Your task to perform on an android device: Show me productivity apps on the Play Store Image 0: 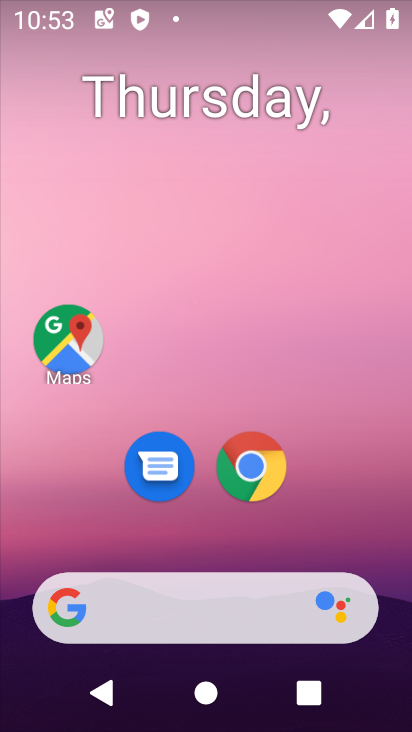
Step 0: drag from (217, 574) to (120, 8)
Your task to perform on an android device: Show me productivity apps on the Play Store Image 1: 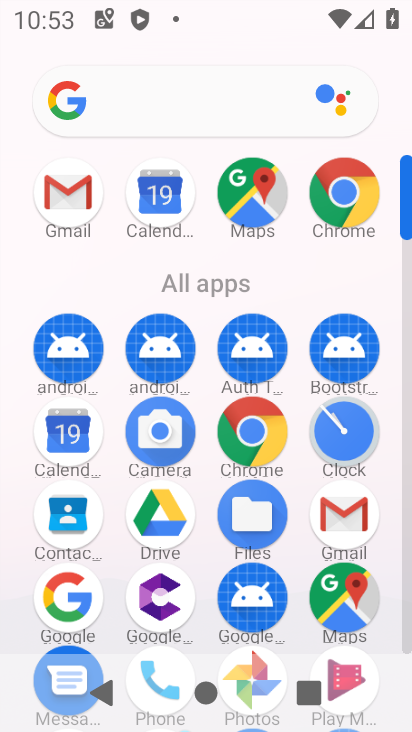
Step 1: drag from (201, 608) to (151, 240)
Your task to perform on an android device: Show me productivity apps on the Play Store Image 2: 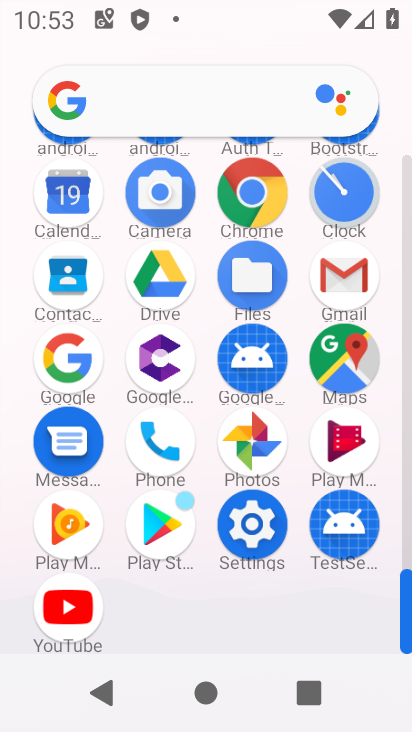
Step 2: click (179, 542)
Your task to perform on an android device: Show me productivity apps on the Play Store Image 3: 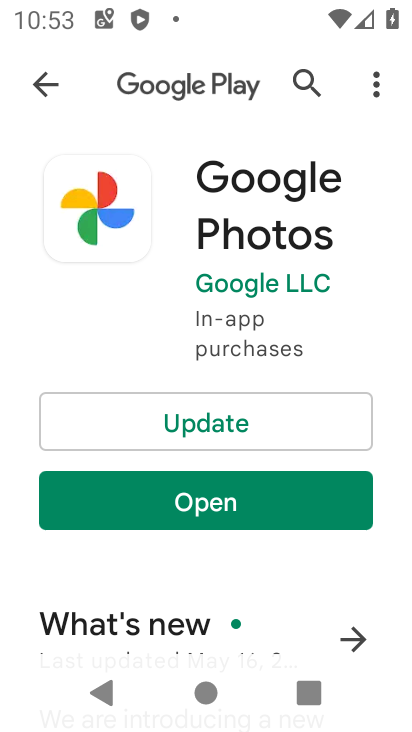
Step 3: drag from (191, 522) to (162, 206)
Your task to perform on an android device: Show me productivity apps on the Play Store Image 4: 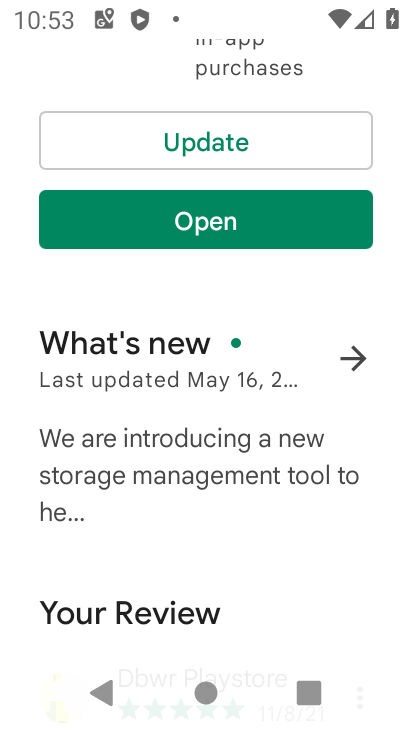
Step 4: drag from (51, 114) to (93, 450)
Your task to perform on an android device: Show me productivity apps on the Play Store Image 5: 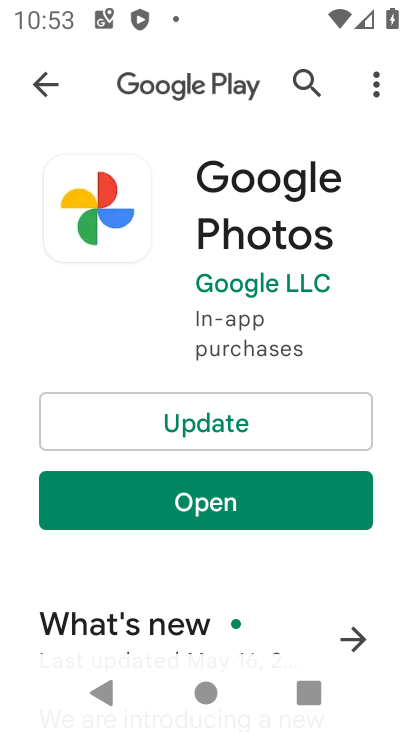
Step 5: click (49, 102)
Your task to perform on an android device: Show me productivity apps on the Play Store Image 6: 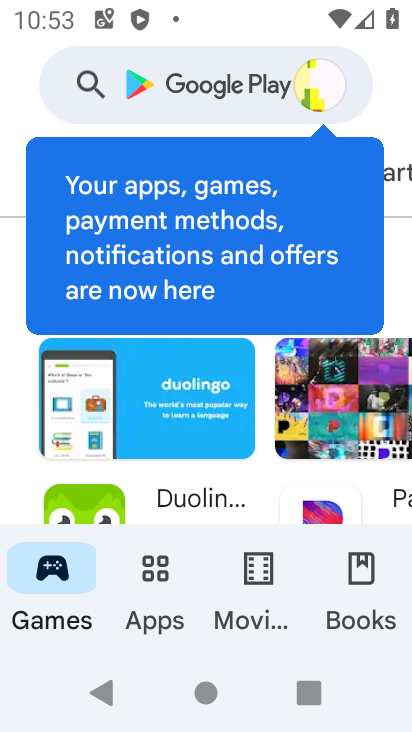
Step 6: click (136, 576)
Your task to perform on an android device: Show me productivity apps on the Play Store Image 7: 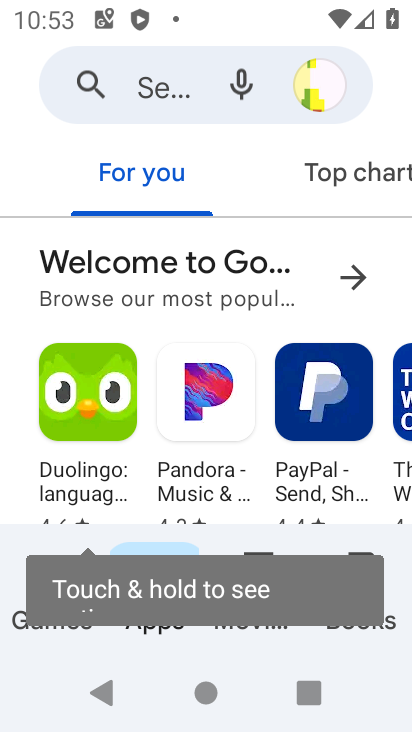
Step 7: drag from (379, 190) to (170, 203)
Your task to perform on an android device: Show me productivity apps on the Play Store Image 8: 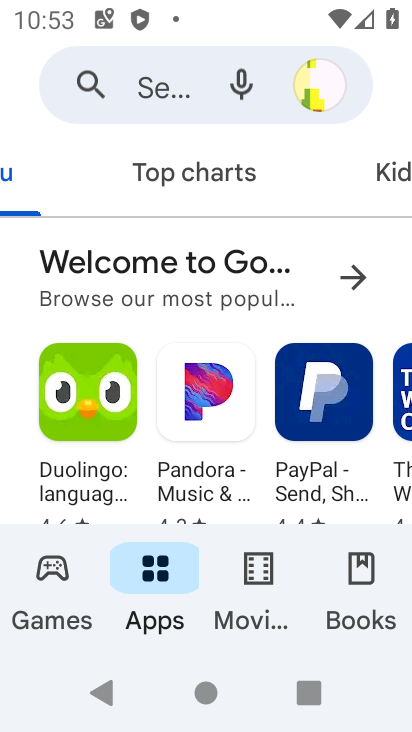
Step 8: drag from (391, 185) to (77, 178)
Your task to perform on an android device: Show me productivity apps on the Play Store Image 9: 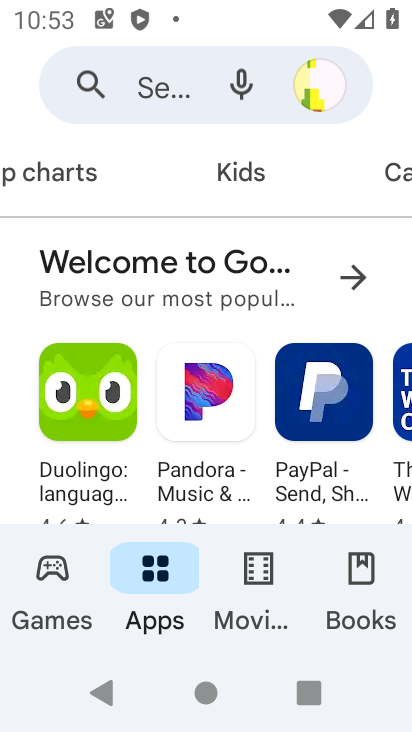
Step 9: click (383, 179)
Your task to perform on an android device: Show me productivity apps on the Play Store Image 10: 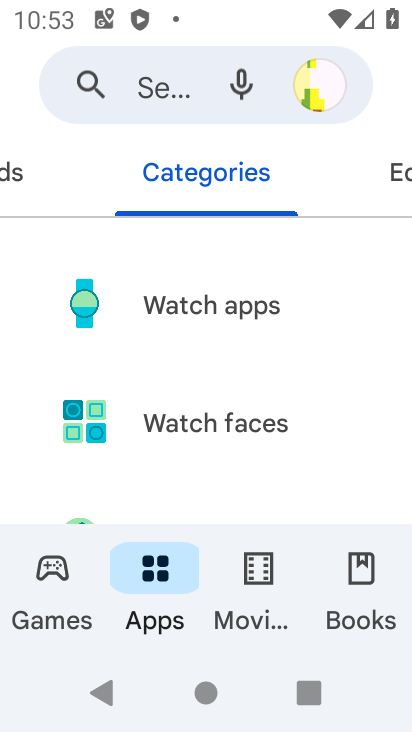
Step 10: drag from (152, 461) to (104, 255)
Your task to perform on an android device: Show me productivity apps on the Play Store Image 11: 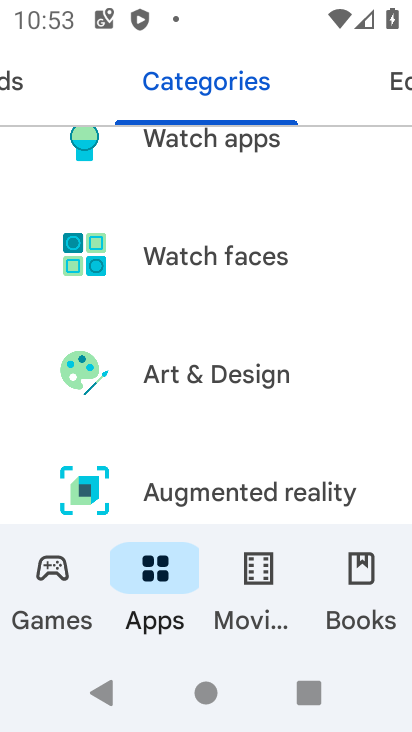
Step 11: drag from (152, 506) to (74, 34)
Your task to perform on an android device: Show me productivity apps on the Play Store Image 12: 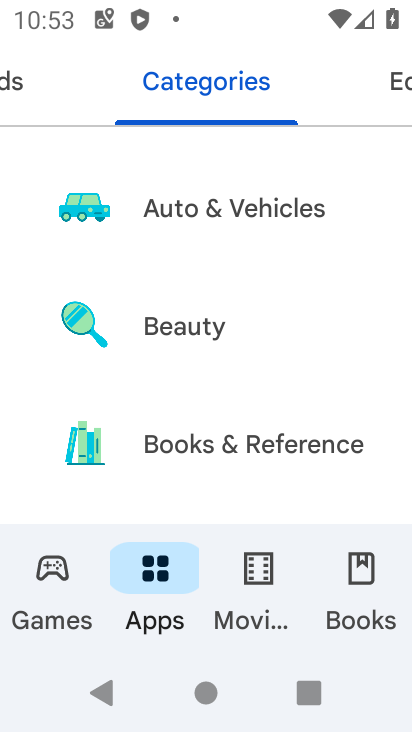
Step 12: drag from (224, 434) to (184, 3)
Your task to perform on an android device: Show me productivity apps on the Play Store Image 13: 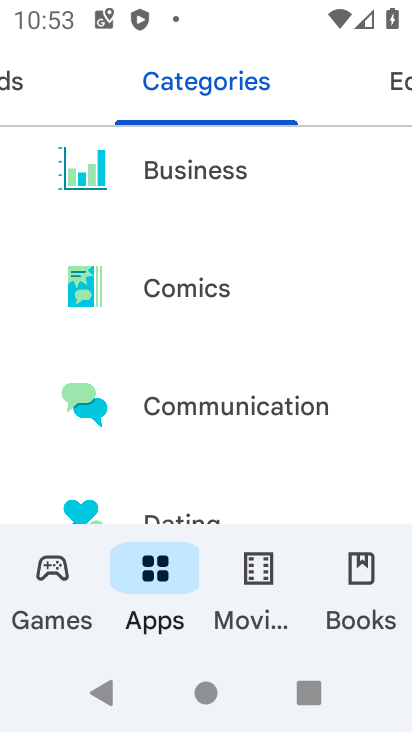
Step 13: drag from (186, 437) to (115, 1)
Your task to perform on an android device: Show me productivity apps on the Play Store Image 14: 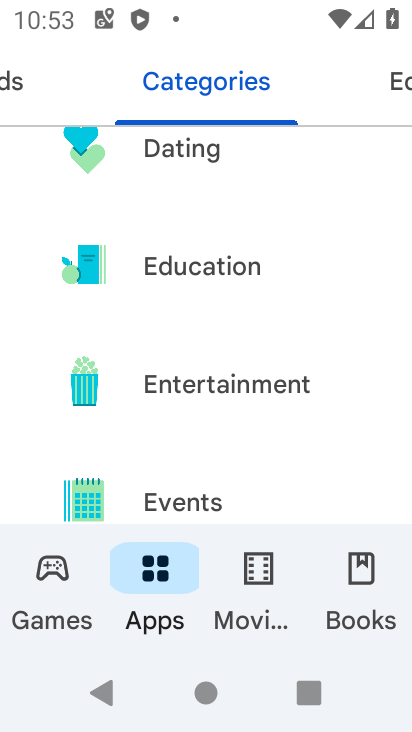
Step 14: drag from (244, 515) to (151, 5)
Your task to perform on an android device: Show me productivity apps on the Play Store Image 15: 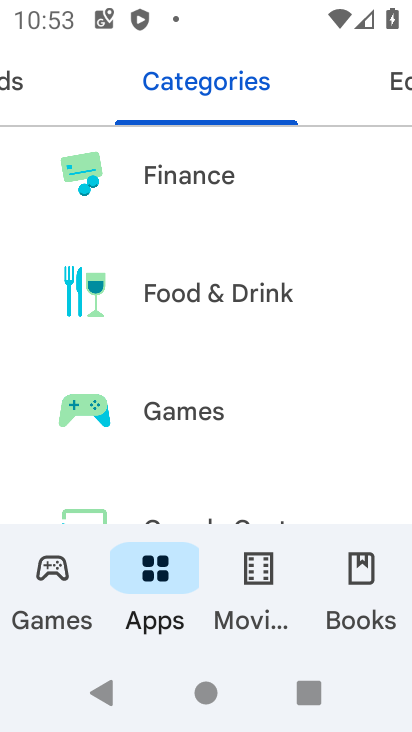
Step 15: drag from (190, 451) to (155, 0)
Your task to perform on an android device: Show me productivity apps on the Play Store Image 16: 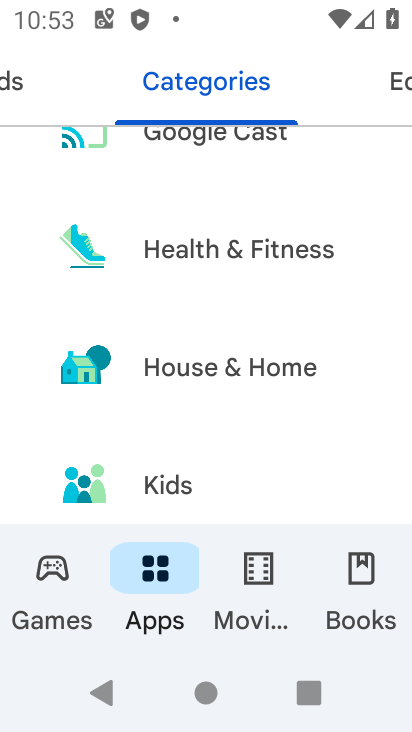
Step 16: drag from (164, 379) to (152, 16)
Your task to perform on an android device: Show me productivity apps on the Play Store Image 17: 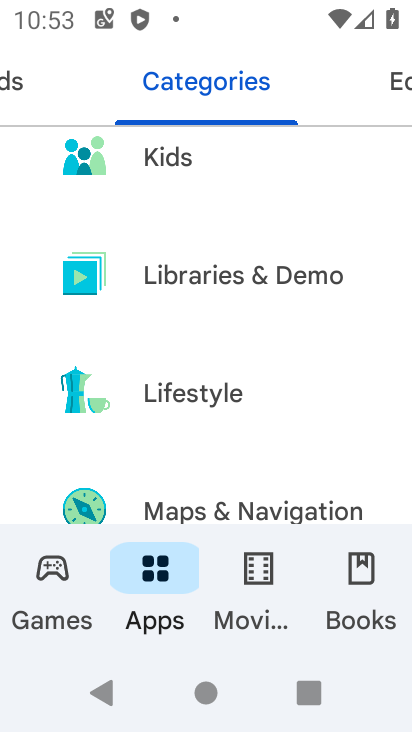
Step 17: drag from (190, 504) to (128, 53)
Your task to perform on an android device: Show me productivity apps on the Play Store Image 18: 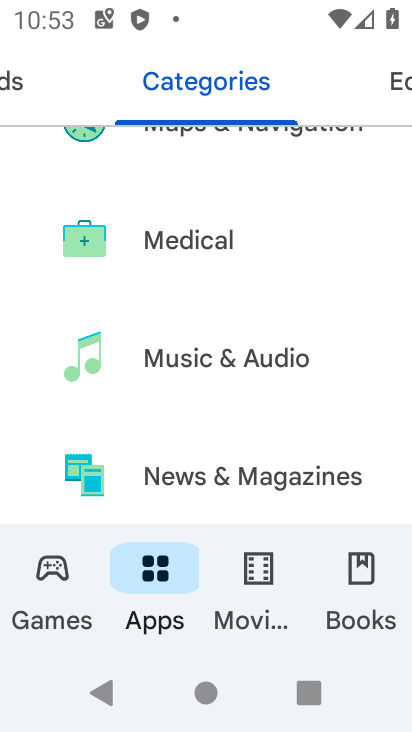
Step 18: drag from (180, 463) to (146, 19)
Your task to perform on an android device: Show me productivity apps on the Play Store Image 19: 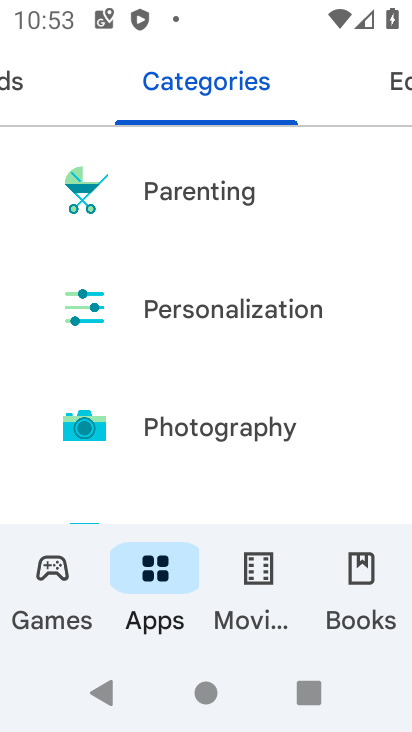
Step 19: click (250, 427)
Your task to perform on an android device: Show me productivity apps on the Play Store Image 20: 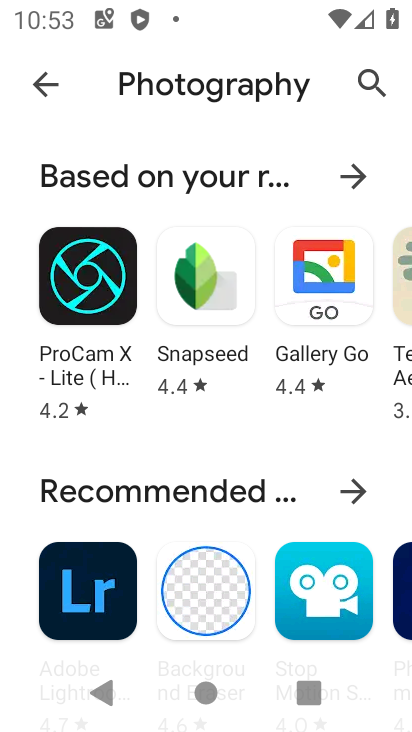
Step 20: click (12, 84)
Your task to perform on an android device: Show me productivity apps on the Play Store Image 21: 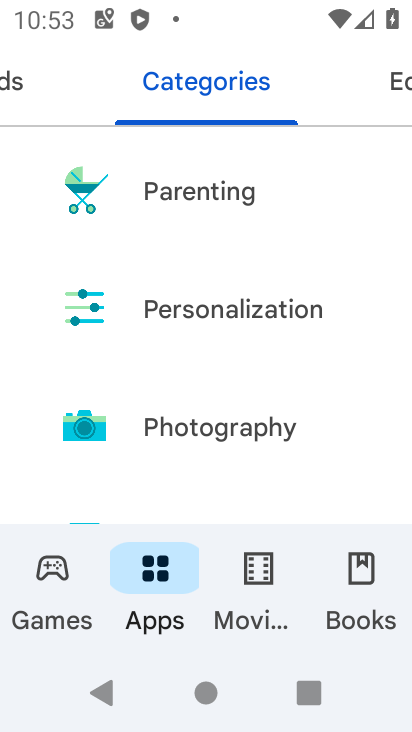
Step 21: drag from (179, 346) to (169, 114)
Your task to perform on an android device: Show me productivity apps on the Play Store Image 22: 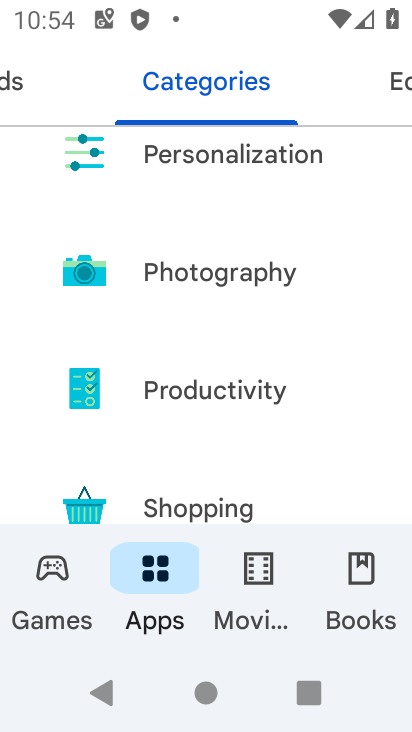
Step 22: click (202, 392)
Your task to perform on an android device: Show me productivity apps on the Play Store Image 23: 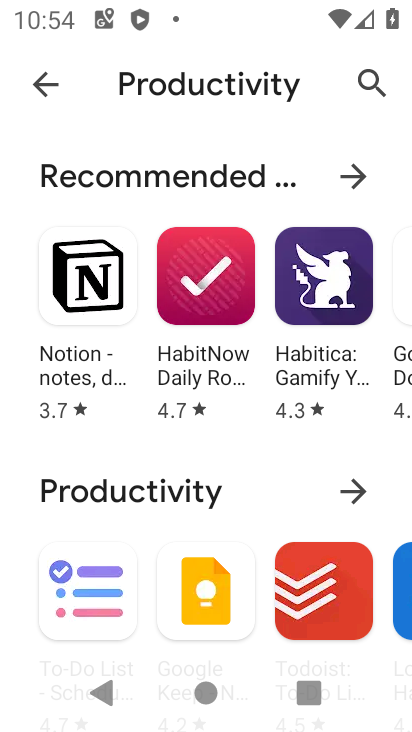
Step 23: task complete